Your task to perform on an android device: turn smart compose on in the gmail app Image 0: 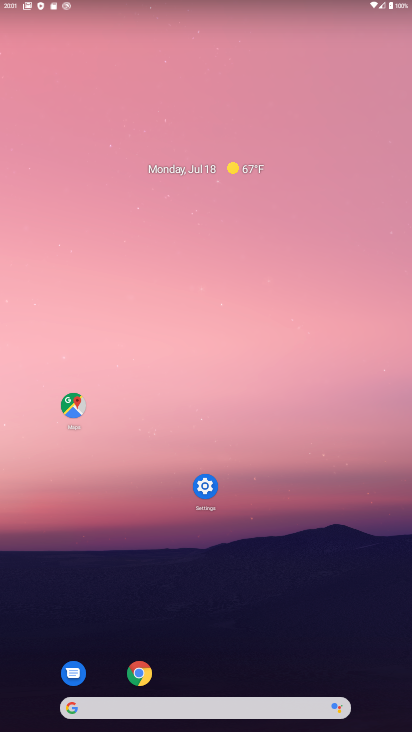
Step 0: drag from (238, 716) to (217, 308)
Your task to perform on an android device: turn smart compose on in the gmail app Image 1: 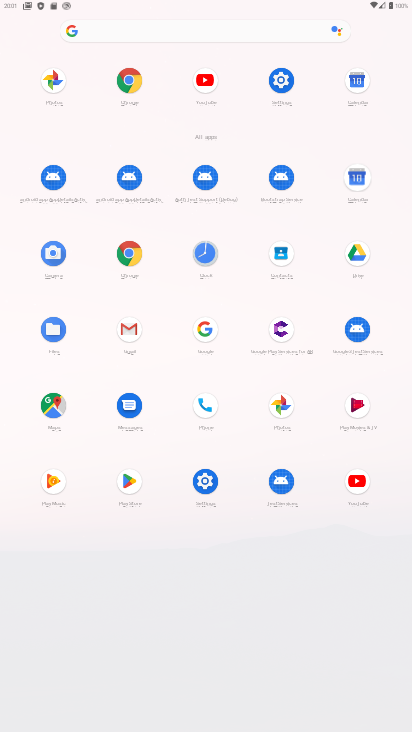
Step 1: click (127, 324)
Your task to perform on an android device: turn smart compose on in the gmail app Image 2: 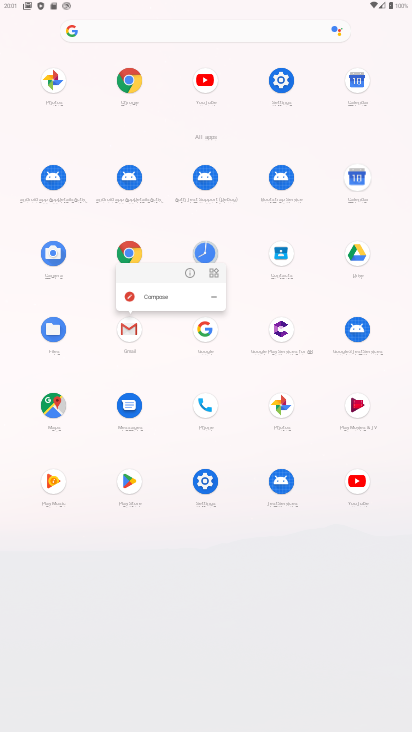
Step 2: click (133, 342)
Your task to perform on an android device: turn smart compose on in the gmail app Image 3: 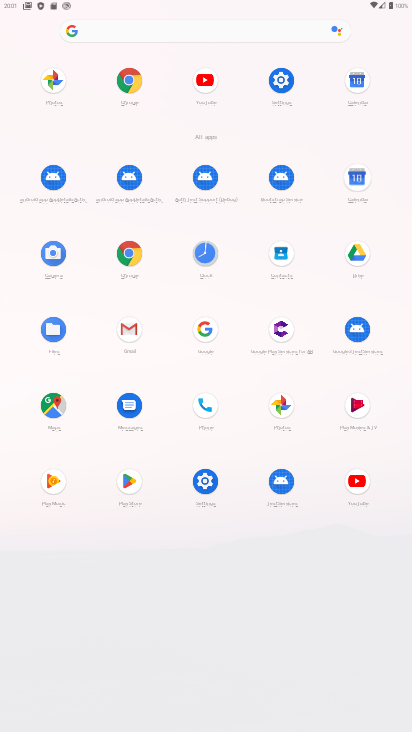
Step 3: click (133, 336)
Your task to perform on an android device: turn smart compose on in the gmail app Image 4: 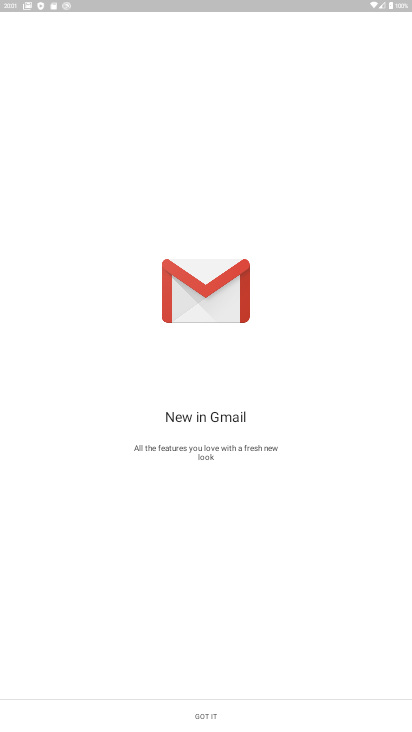
Step 4: click (207, 728)
Your task to perform on an android device: turn smart compose on in the gmail app Image 5: 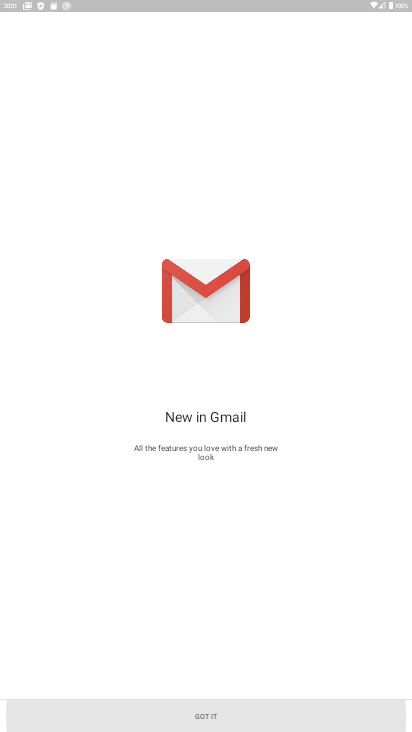
Step 5: click (217, 710)
Your task to perform on an android device: turn smart compose on in the gmail app Image 6: 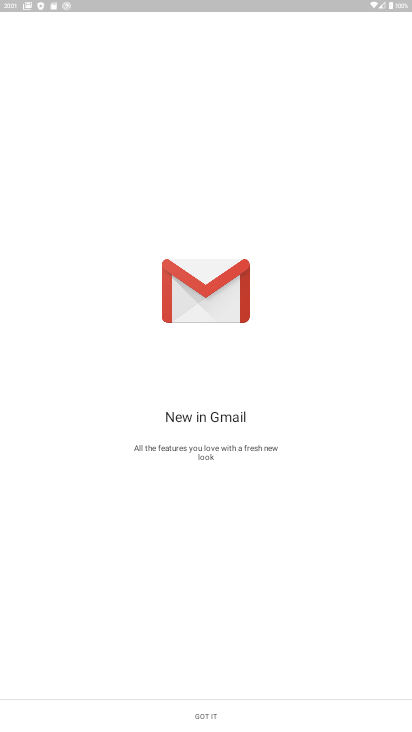
Step 6: click (217, 710)
Your task to perform on an android device: turn smart compose on in the gmail app Image 7: 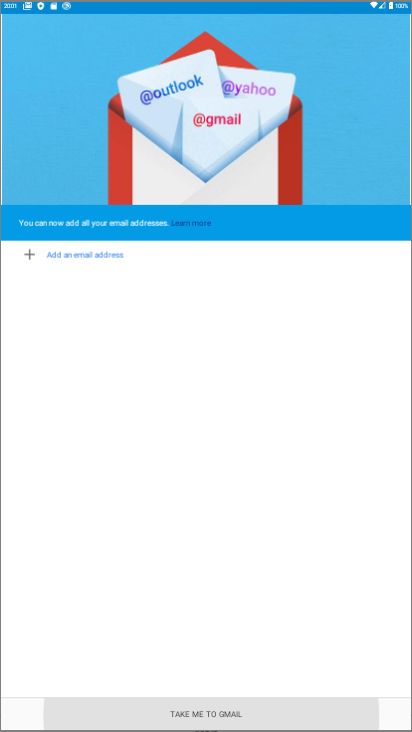
Step 7: click (218, 710)
Your task to perform on an android device: turn smart compose on in the gmail app Image 8: 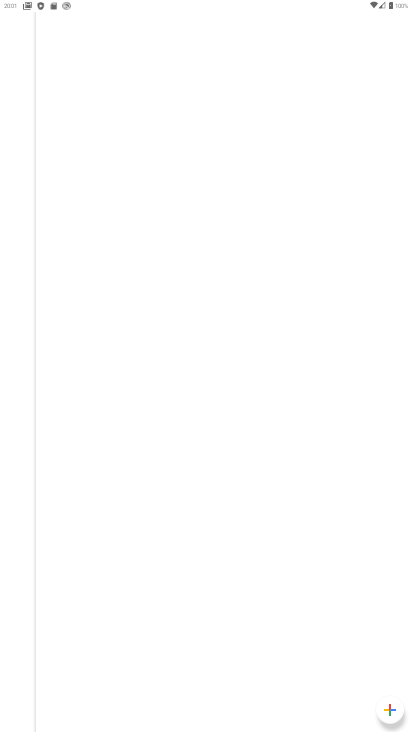
Step 8: click (231, 714)
Your task to perform on an android device: turn smart compose on in the gmail app Image 9: 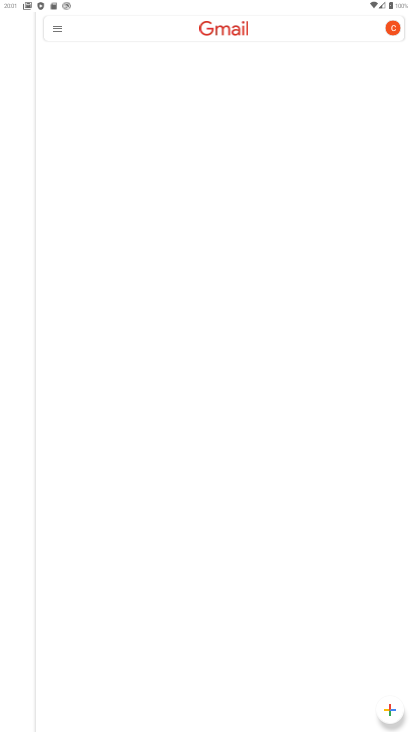
Step 9: click (231, 714)
Your task to perform on an android device: turn smart compose on in the gmail app Image 10: 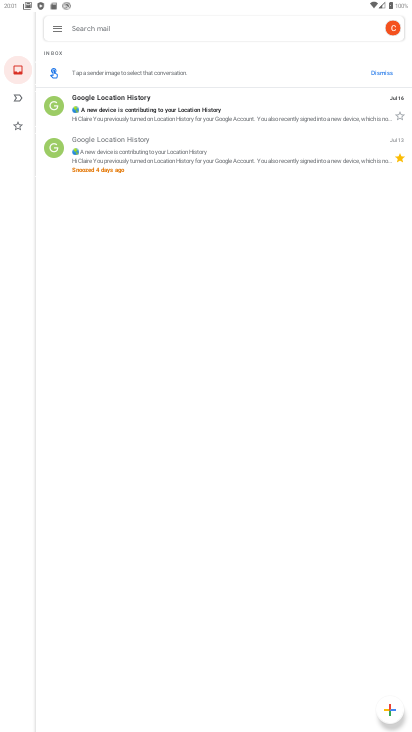
Step 10: click (51, 26)
Your task to perform on an android device: turn smart compose on in the gmail app Image 11: 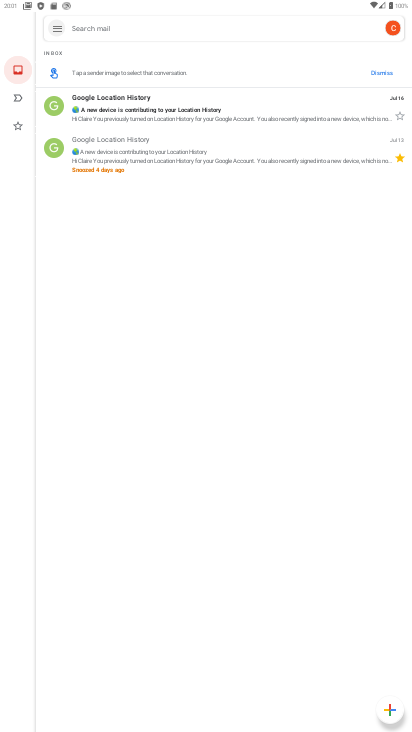
Step 11: click (51, 27)
Your task to perform on an android device: turn smart compose on in the gmail app Image 12: 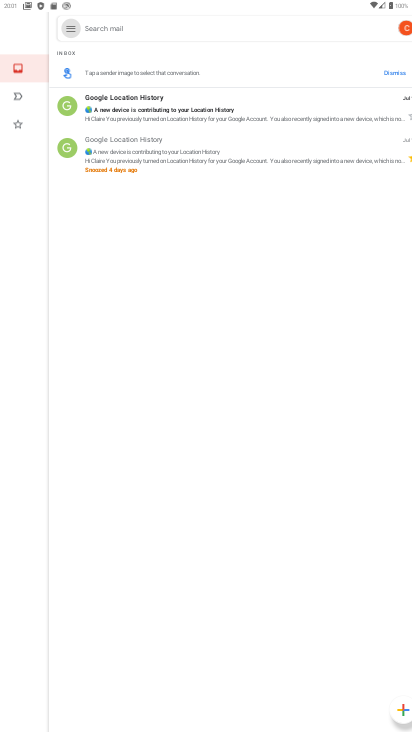
Step 12: click (53, 28)
Your task to perform on an android device: turn smart compose on in the gmail app Image 13: 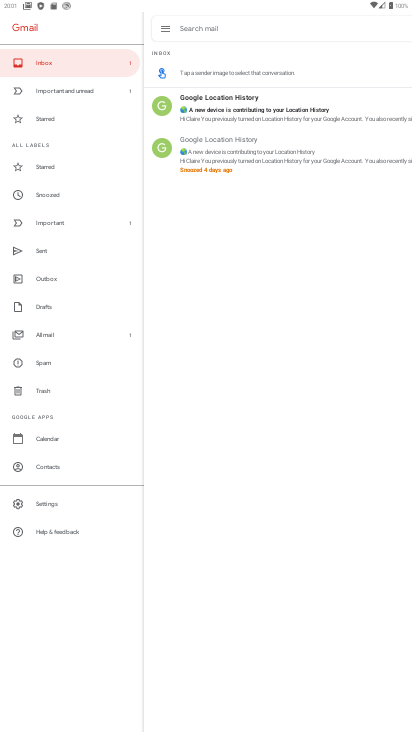
Step 13: click (50, 502)
Your task to perform on an android device: turn smart compose on in the gmail app Image 14: 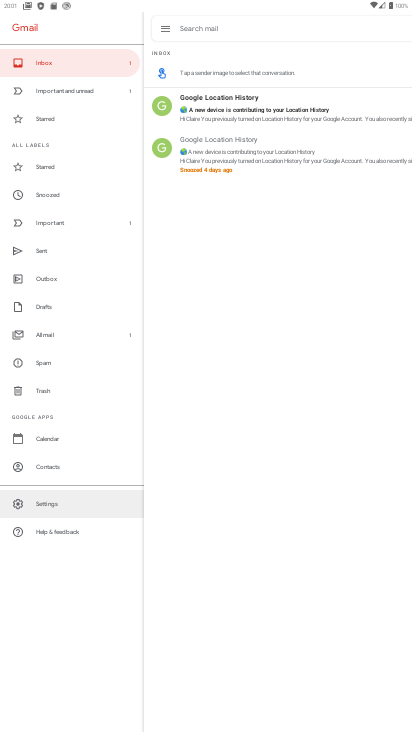
Step 14: click (49, 500)
Your task to perform on an android device: turn smart compose on in the gmail app Image 15: 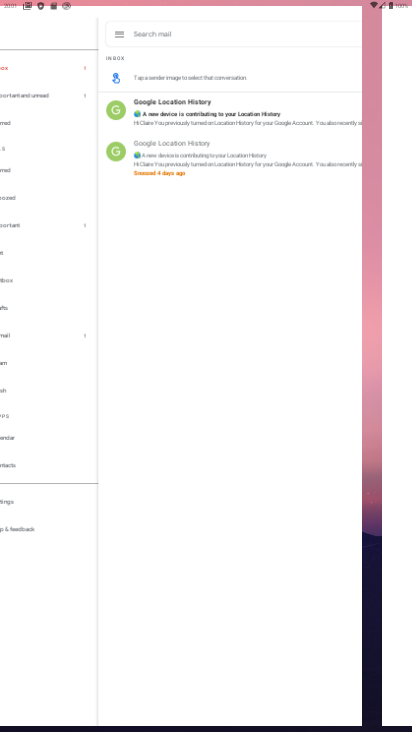
Step 15: click (49, 501)
Your task to perform on an android device: turn smart compose on in the gmail app Image 16: 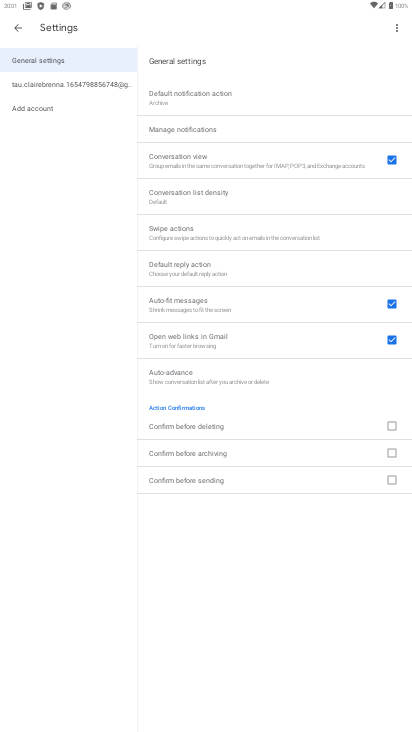
Step 16: click (49, 84)
Your task to perform on an android device: turn smart compose on in the gmail app Image 17: 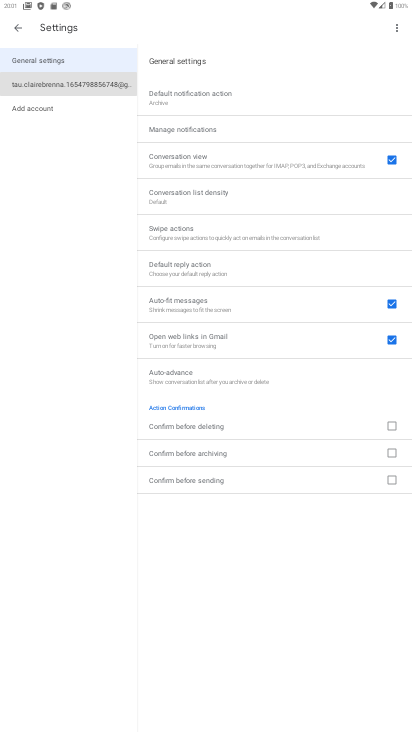
Step 17: click (51, 84)
Your task to perform on an android device: turn smart compose on in the gmail app Image 18: 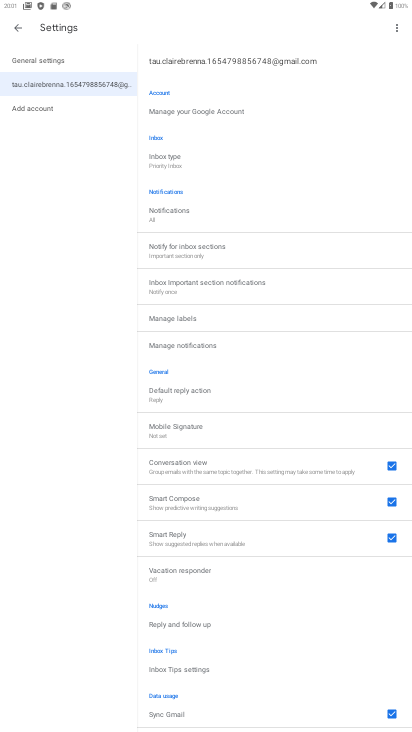
Step 18: click (334, 504)
Your task to perform on an android device: turn smart compose on in the gmail app Image 19: 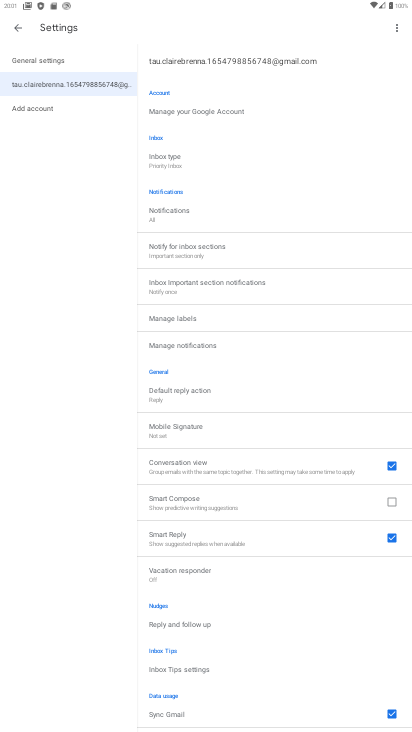
Step 19: click (388, 500)
Your task to perform on an android device: turn smart compose on in the gmail app Image 20: 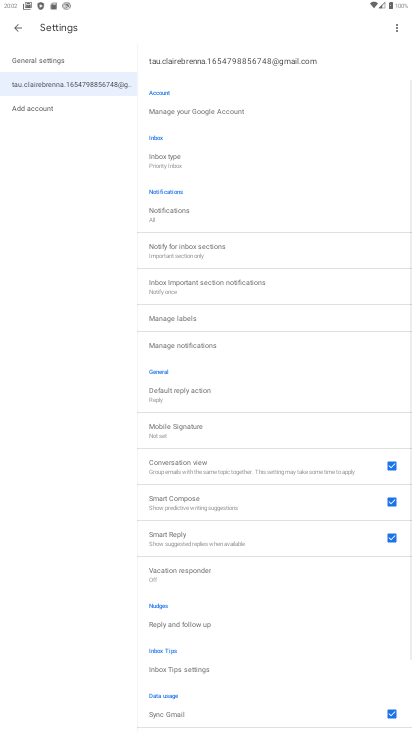
Step 20: task complete